Your task to perform on an android device: turn off notifications in google photos Image 0: 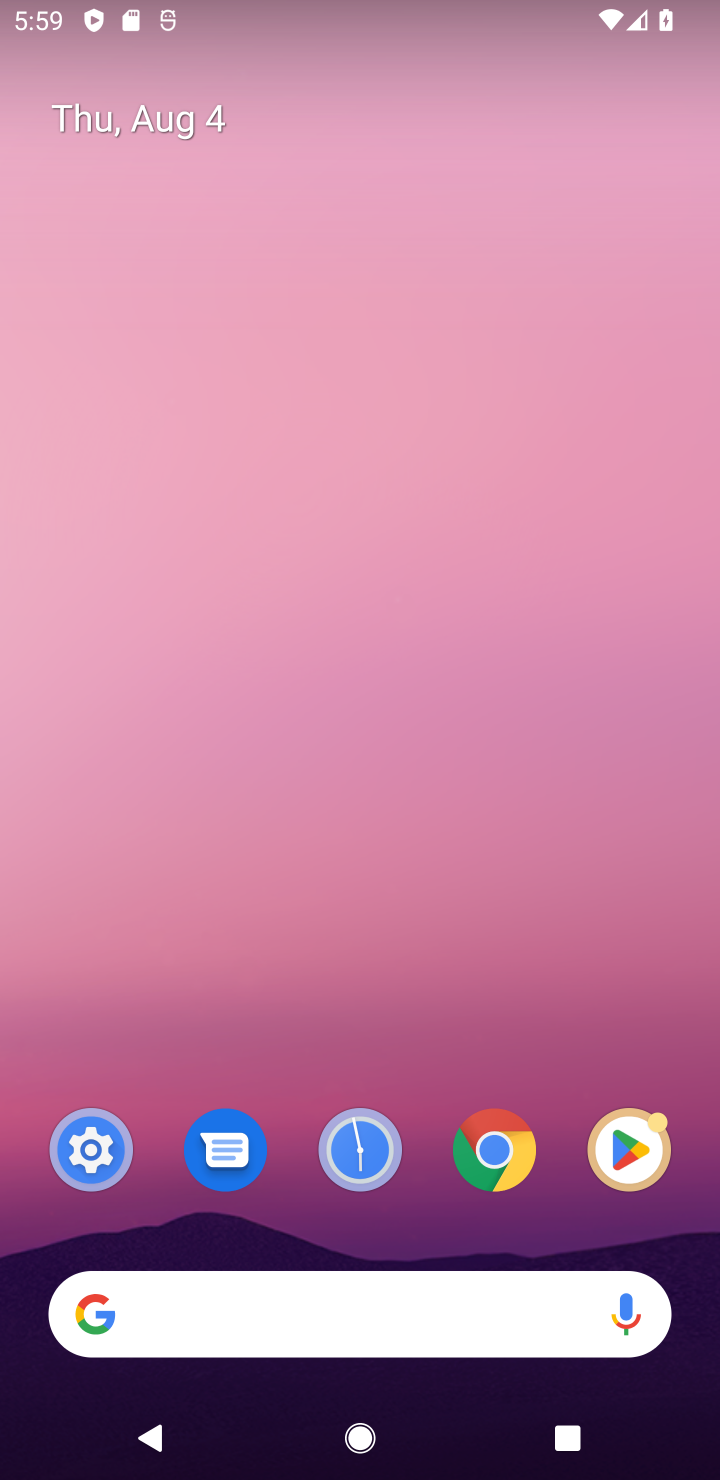
Step 0: drag from (414, 971) to (652, 0)
Your task to perform on an android device: turn off notifications in google photos Image 1: 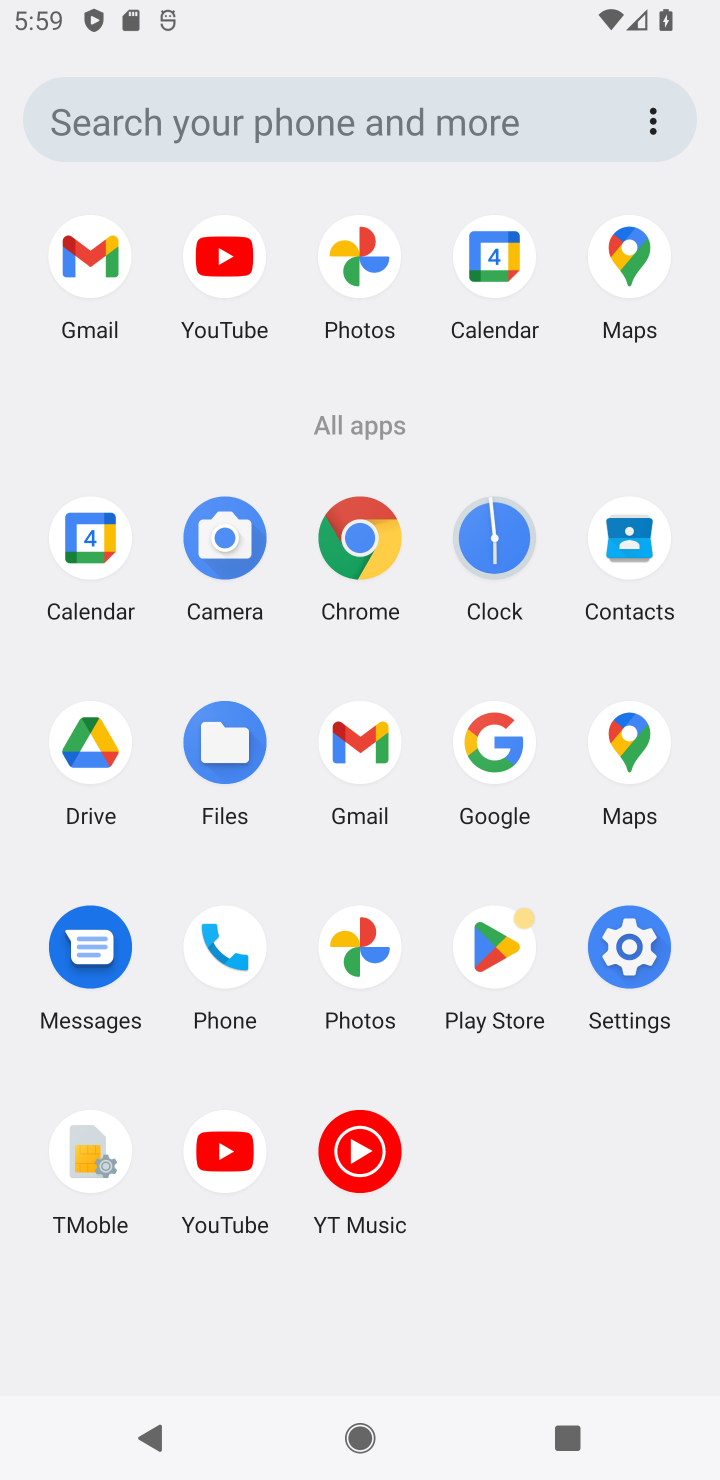
Step 1: click (349, 943)
Your task to perform on an android device: turn off notifications in google photos Image 2: 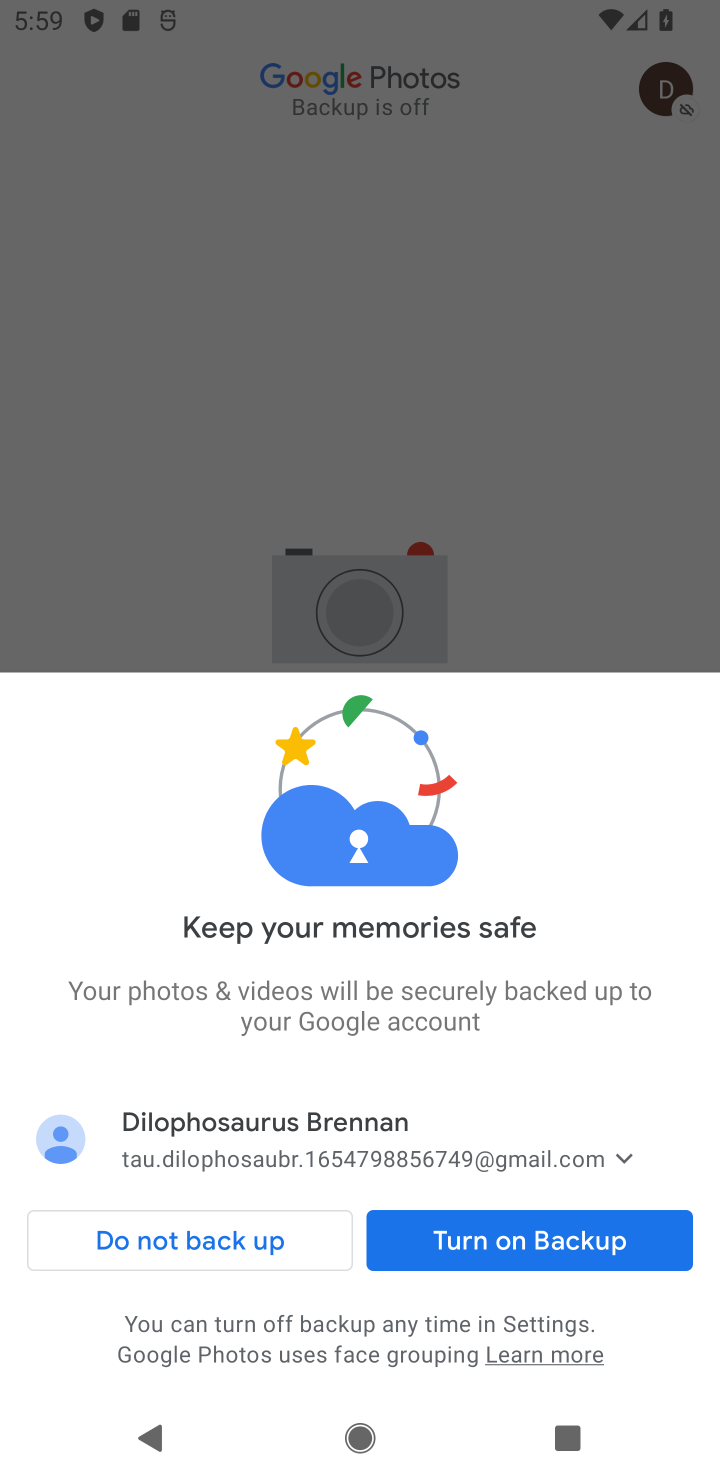
Step 2: click (424, 1238)
Your task to perform on an android device: turn off notifications in google photos Image 3: 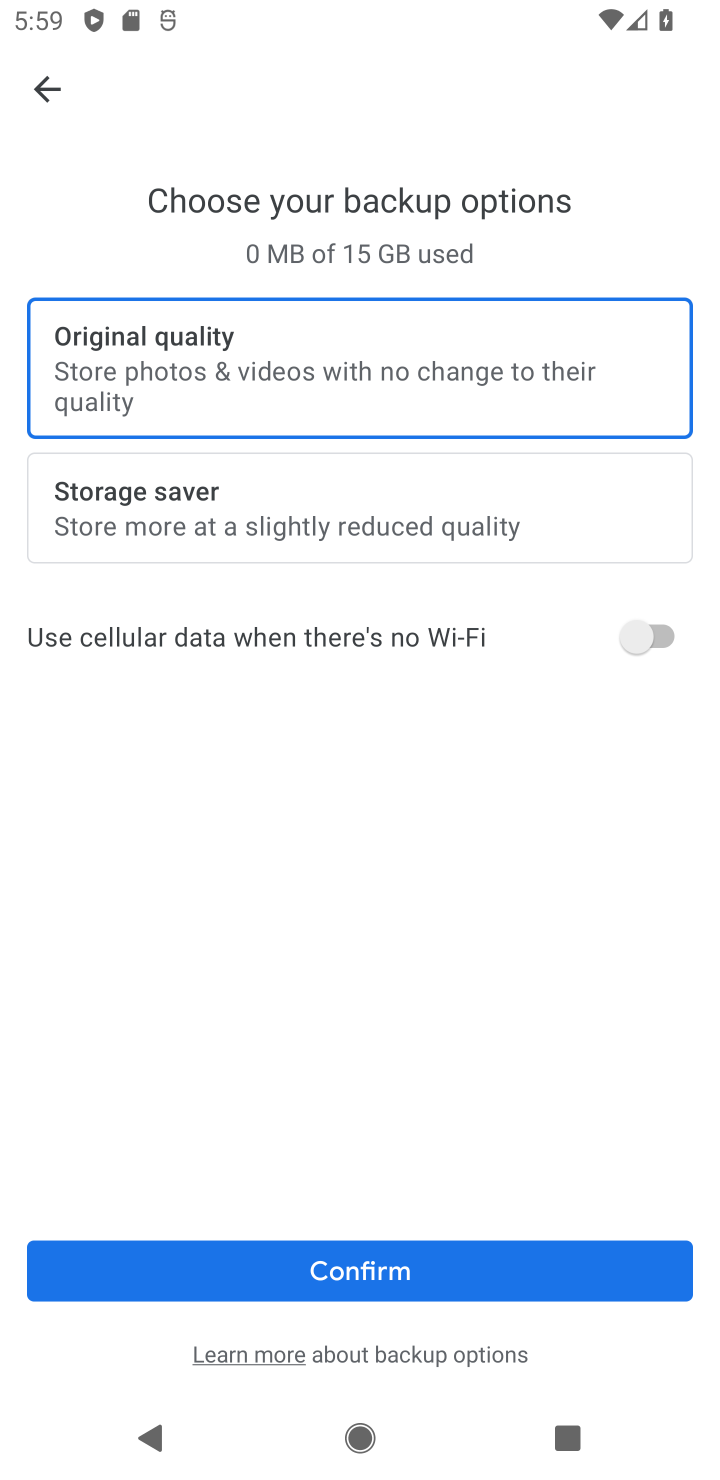
Step 3: click (479, 1278)
Your task to perform on an android device: turn off notifications in google photos Image 4: 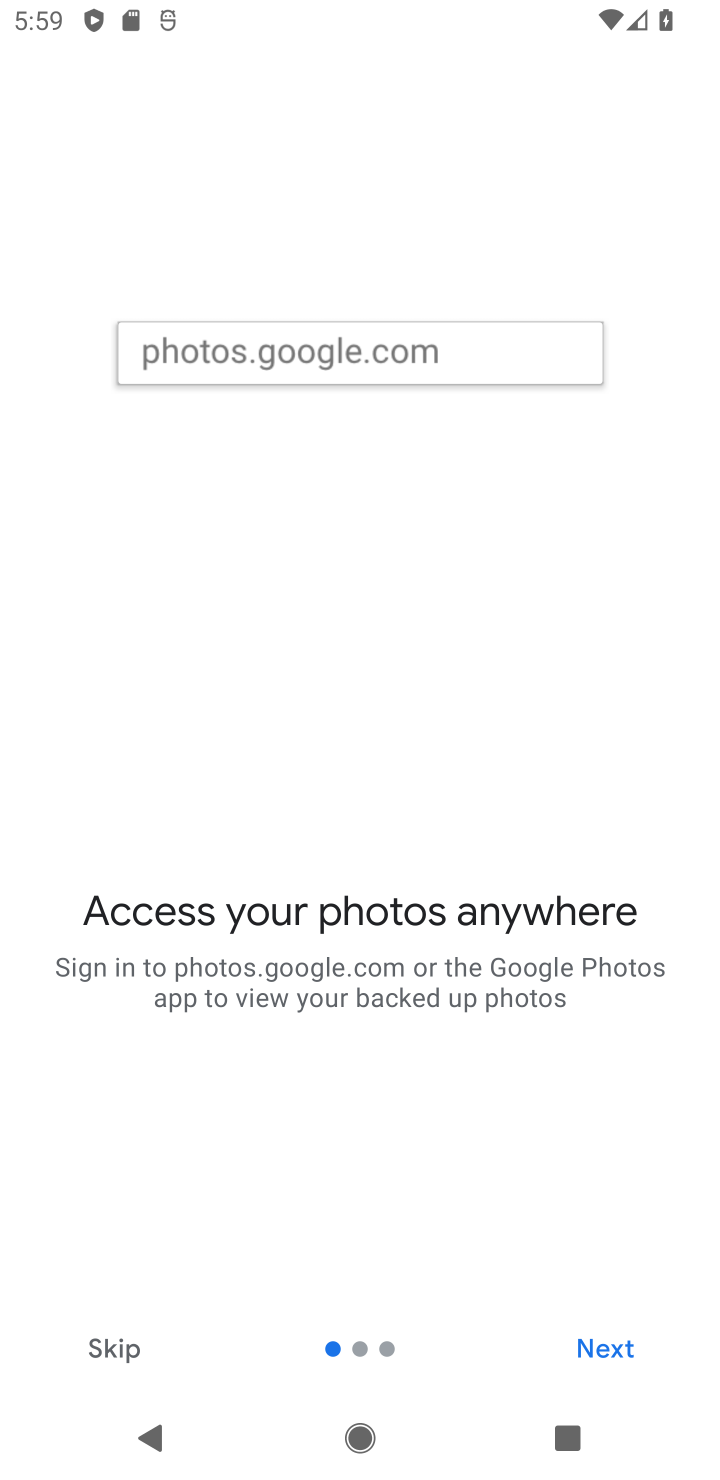
Step 4: click (593, 1344)
Your task to perform on an android device: turn off notifications in google photos Image 5: 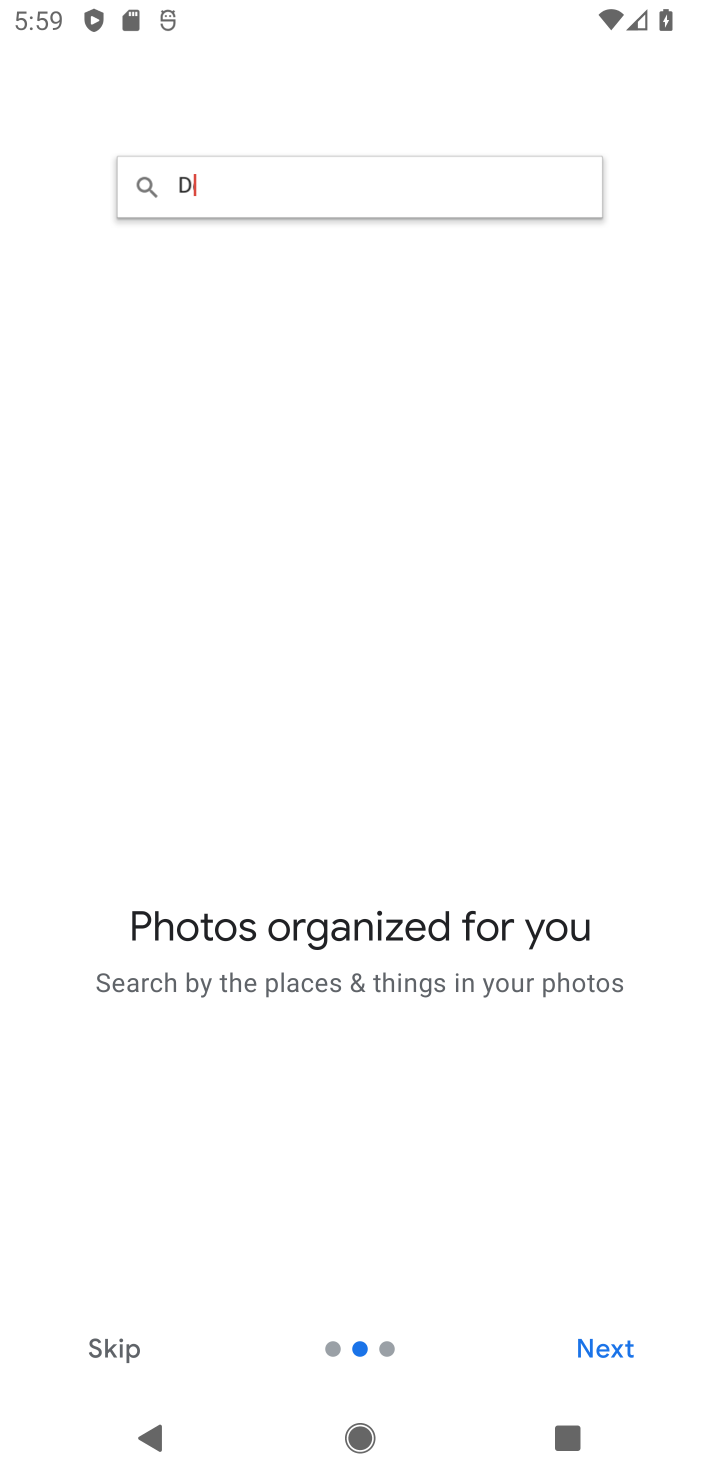
Step 5: click (593, 1344)
Your task to perform on an android device: turn off notifications in google photos Image 6: 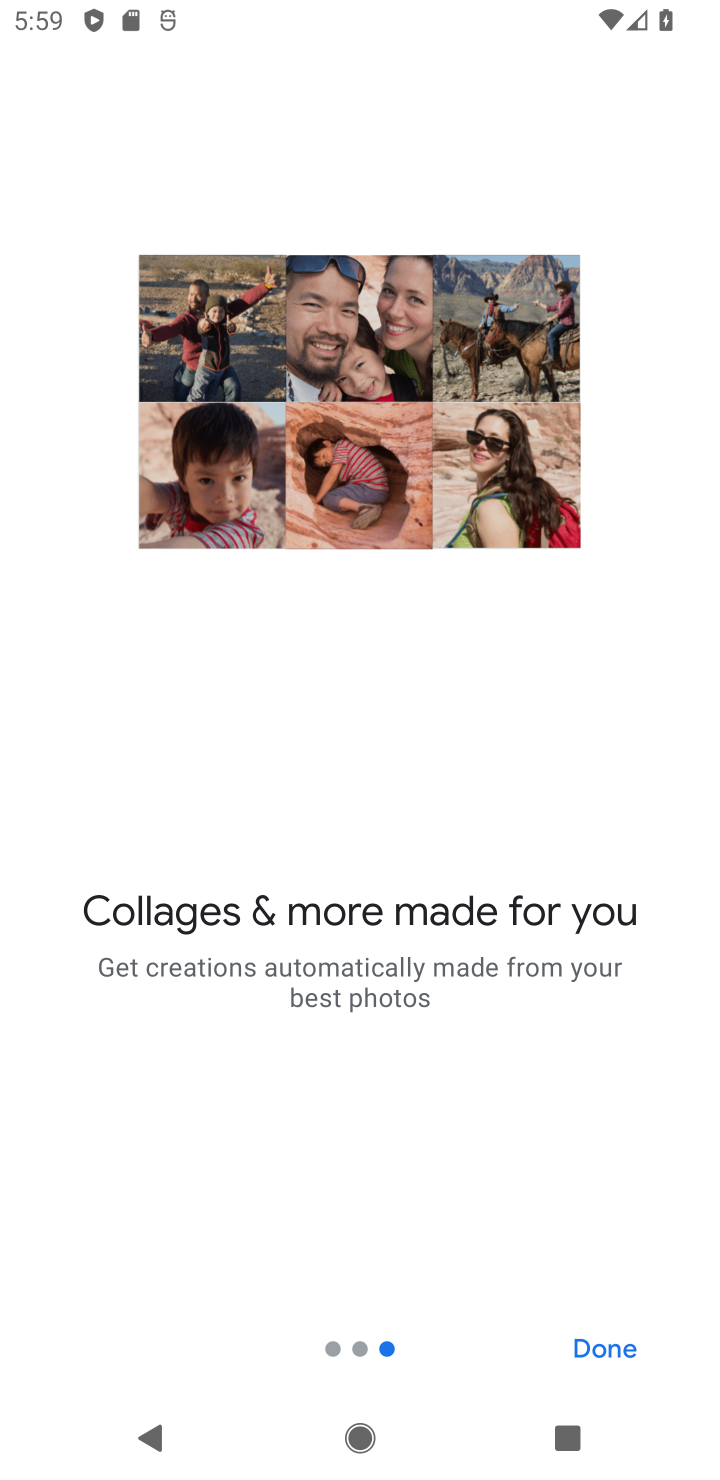
Step 6: click (593, 1344)
Your task to perform on an android device: turn off notifications in google photos Image 7: 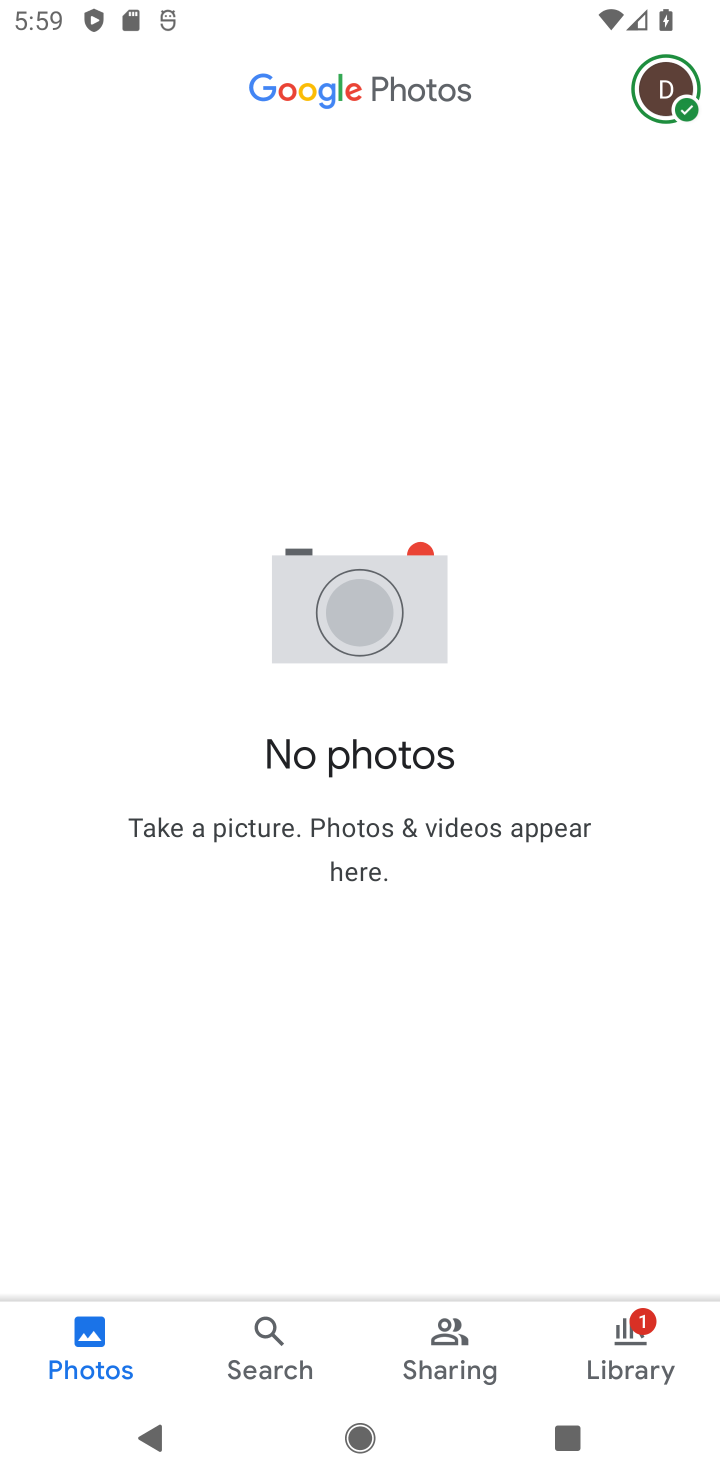
Step 7: click (677, 82)
Your task to perform on an android device: turn off notifications in google photos Image 8: 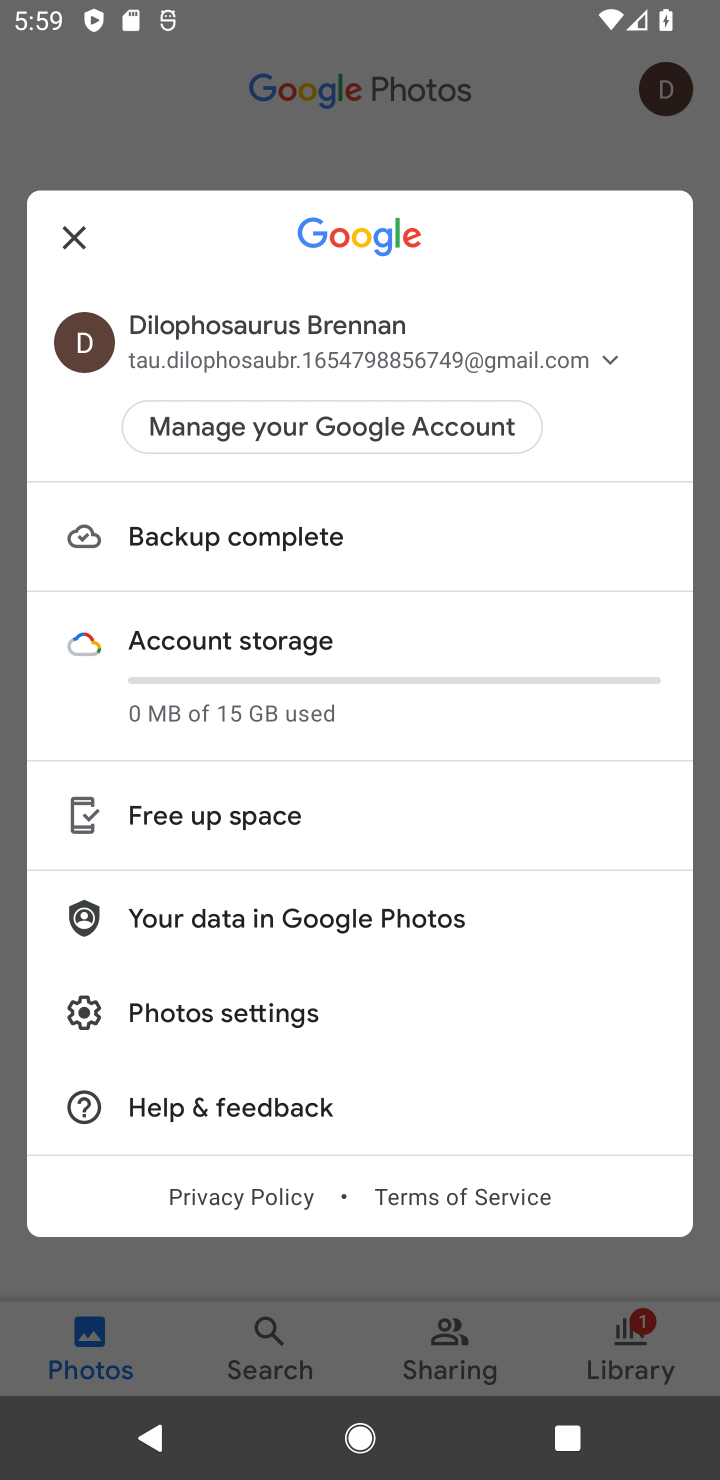
Step 8: click (264, 1002)
Your task to perform on an android device: turn off notifications in google photos Image 9: 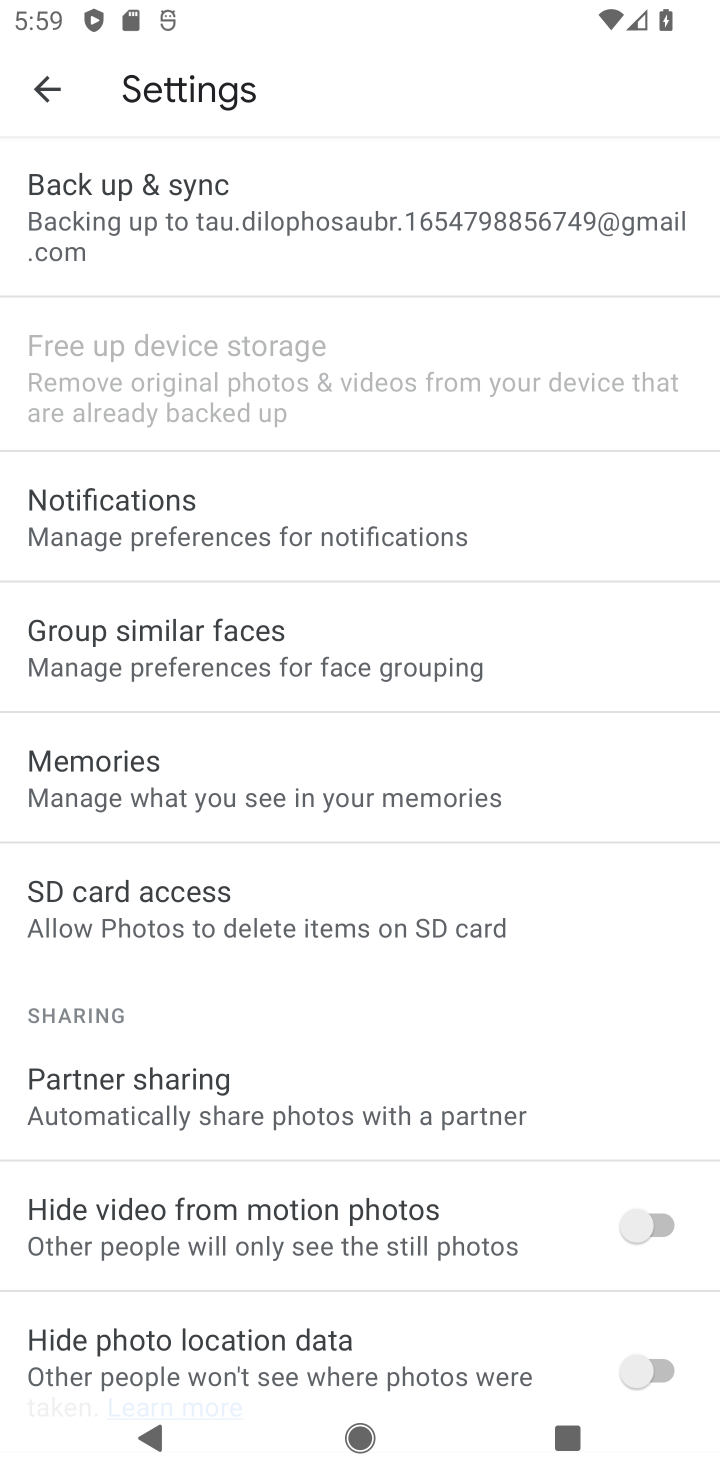
Step 9: click (165, 527)
Your task to perform on an android device: turn off notifications in google photos Image 10: 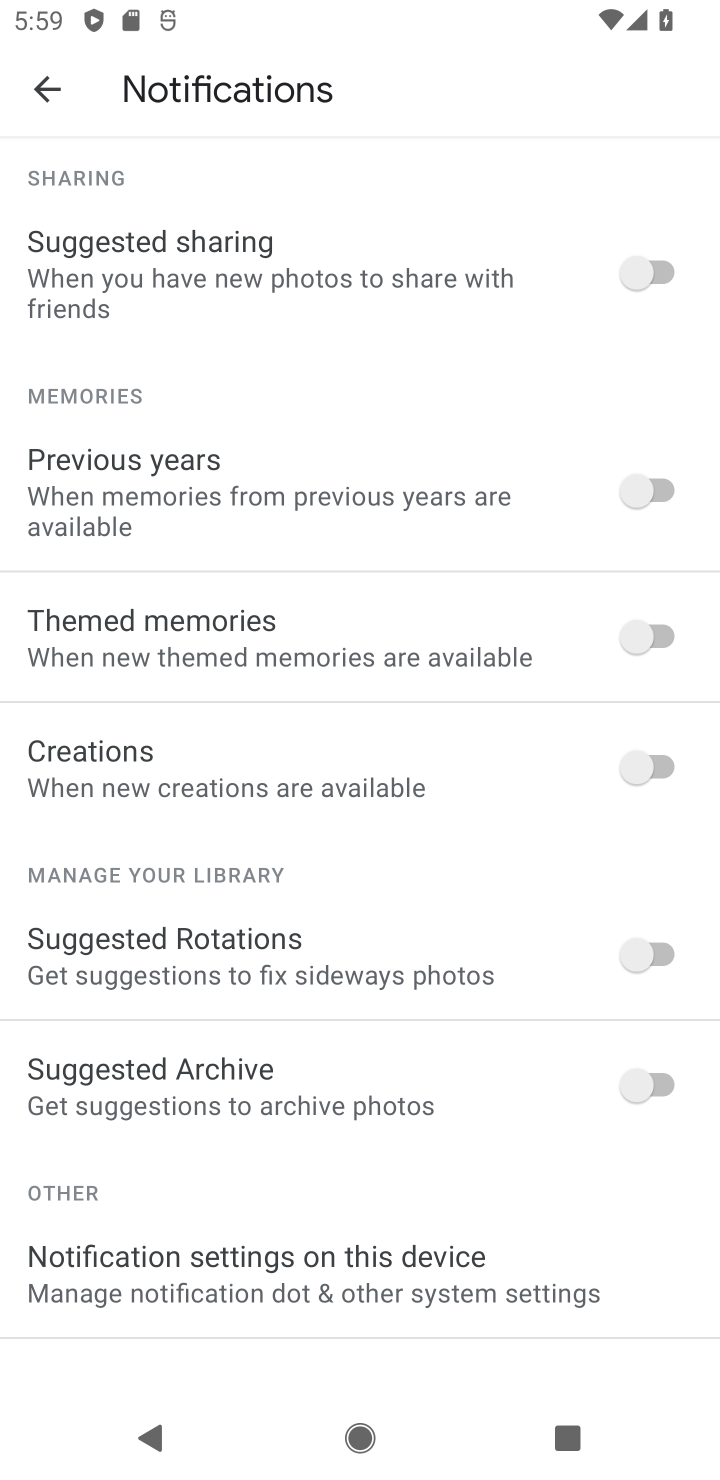
Step 10: click (435, 1286)
Your task to perform on an android device: turn off notifications in google photos Image 11: 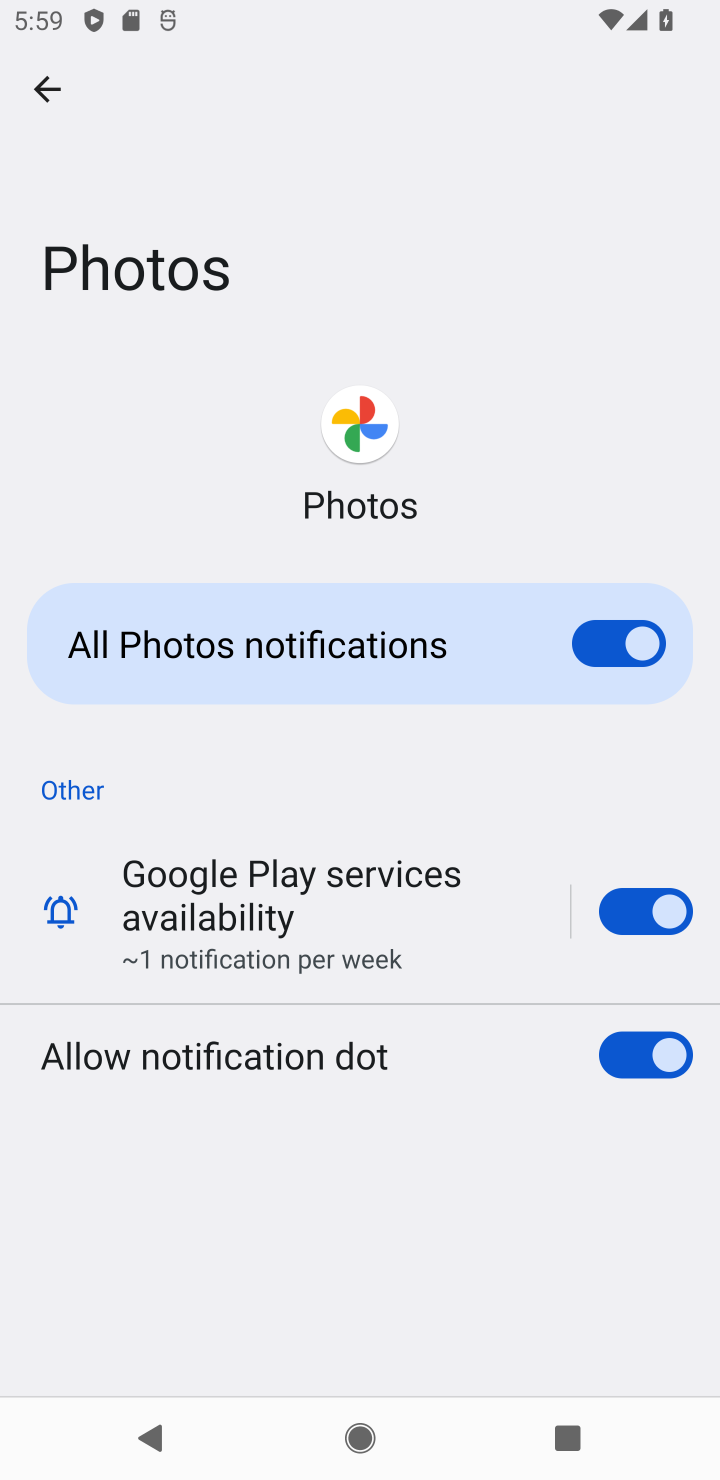
Step 11: click (589, 640)
Your task to perform on an android device: turn off notifications in google photos Image 12: 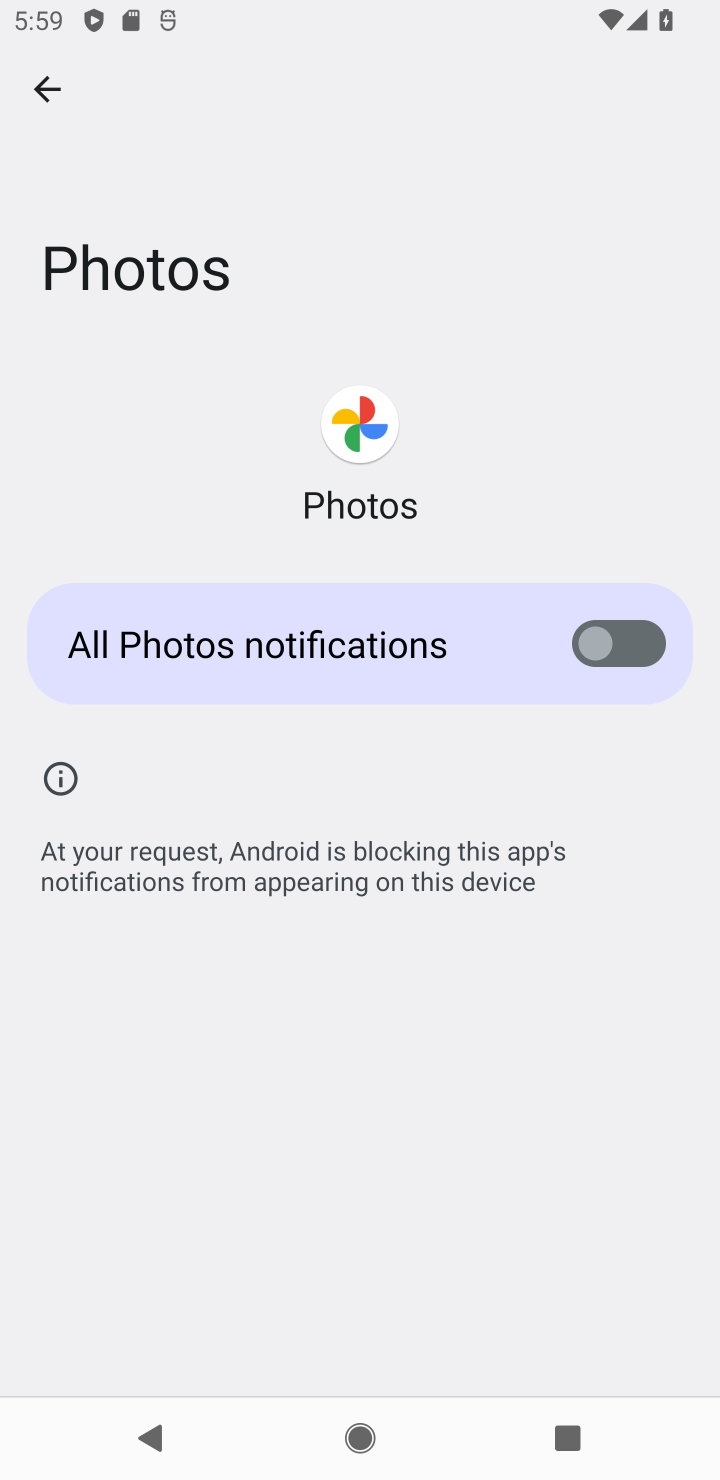
Step 12: task complete